Your task to perform on an android device: Search for pizza restaurants on Maps Image 0: 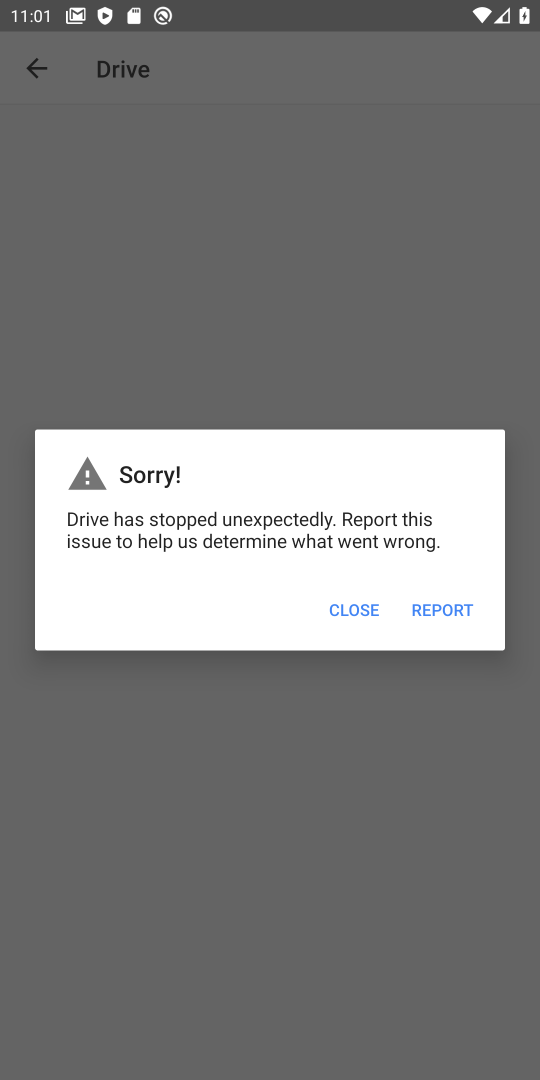
Step 0: press home button
Your task to perform on an android device: Search for pizza restaurants on Maps Image 1: 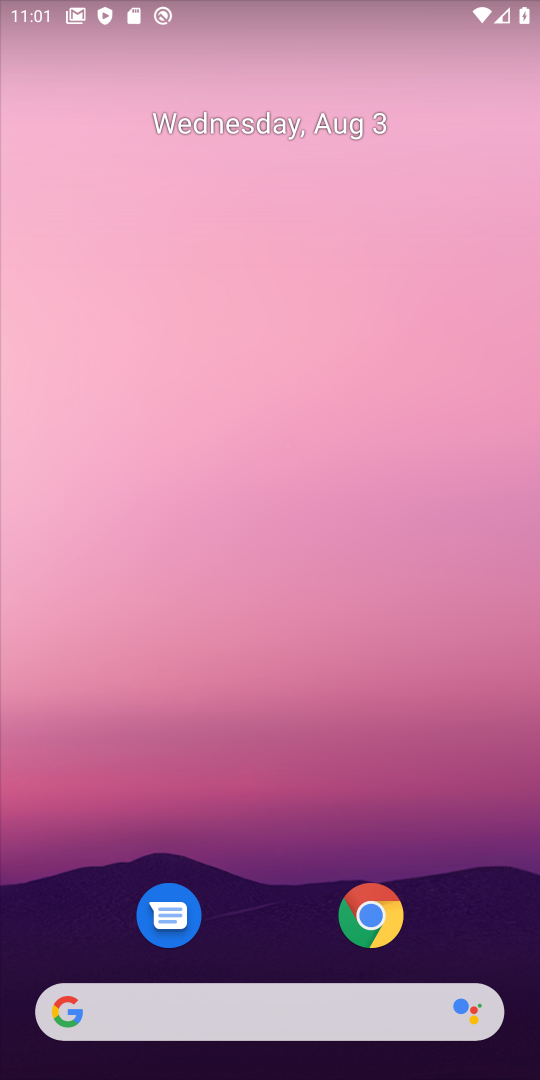
Step 1: drag from (235, 873) to (164, 87)
Your task to perform on an android device: Search for pizza restaurants on Maps Image 2: 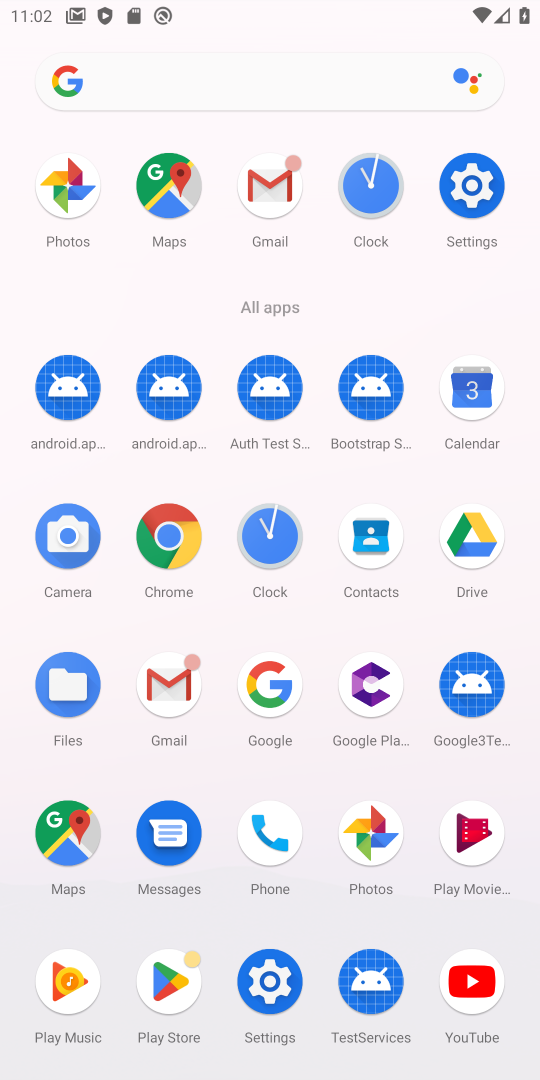
Step 2: click (73, 825)
Your task to perform on an android device: Search for pizza restaurants on Maps Image 3: 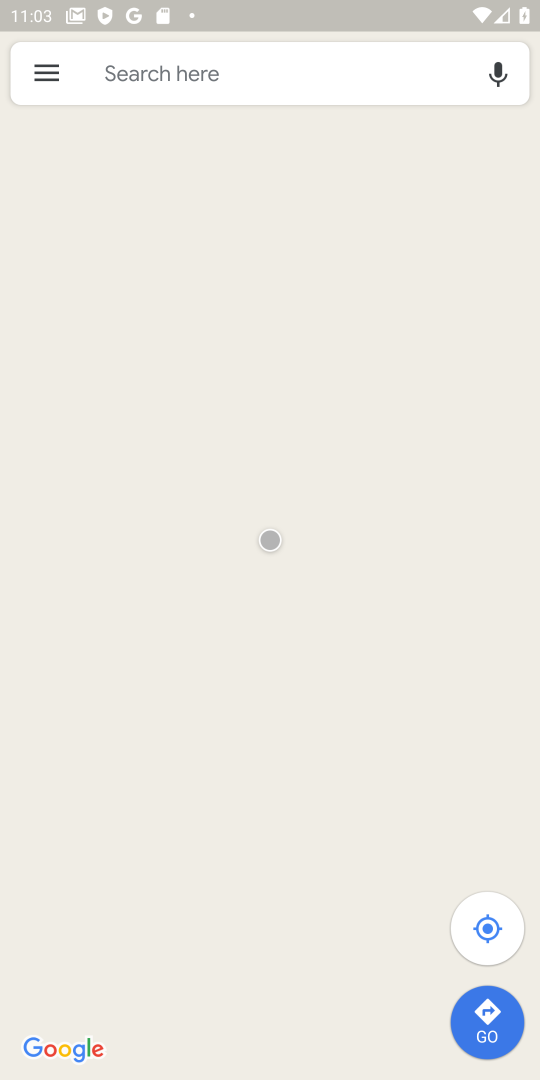
Step 3: click (278, 85)
Your task to perform on an android device: Search for pizza restaurants on Maps Image 4: 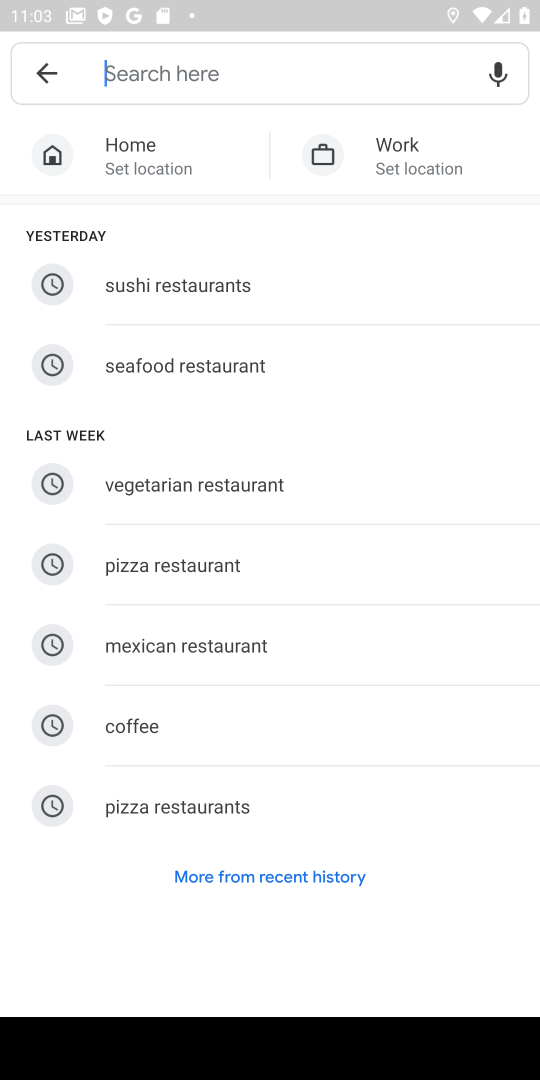
Step 4: type "pizza restaurants "
Your task to perform on an android device: Search for pizza restaurants on Maps Image 5: 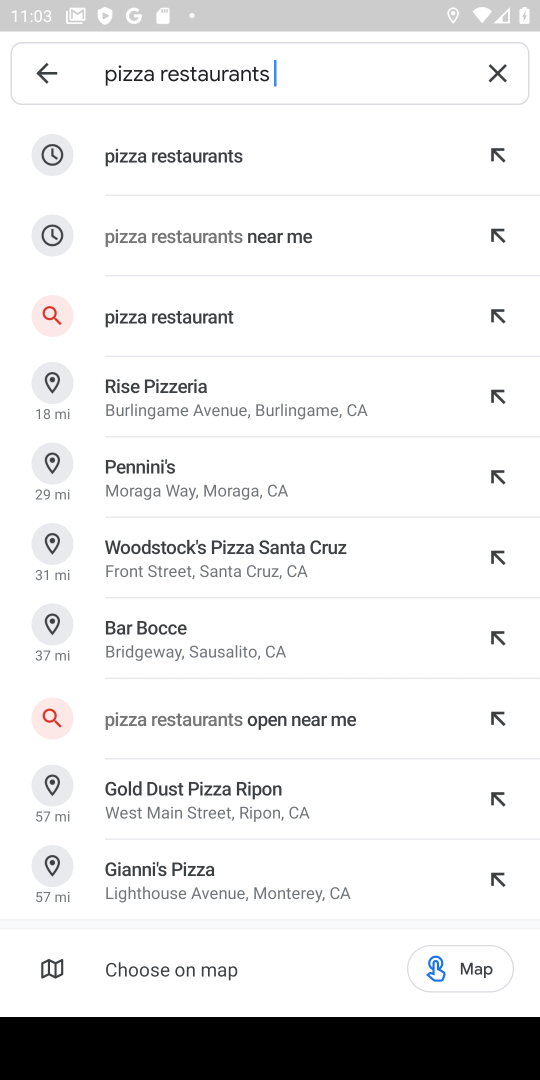
Step 5: click (149, 161)
Your task to perform on an android device: Search for pizza restaurants on Maps Image 6: 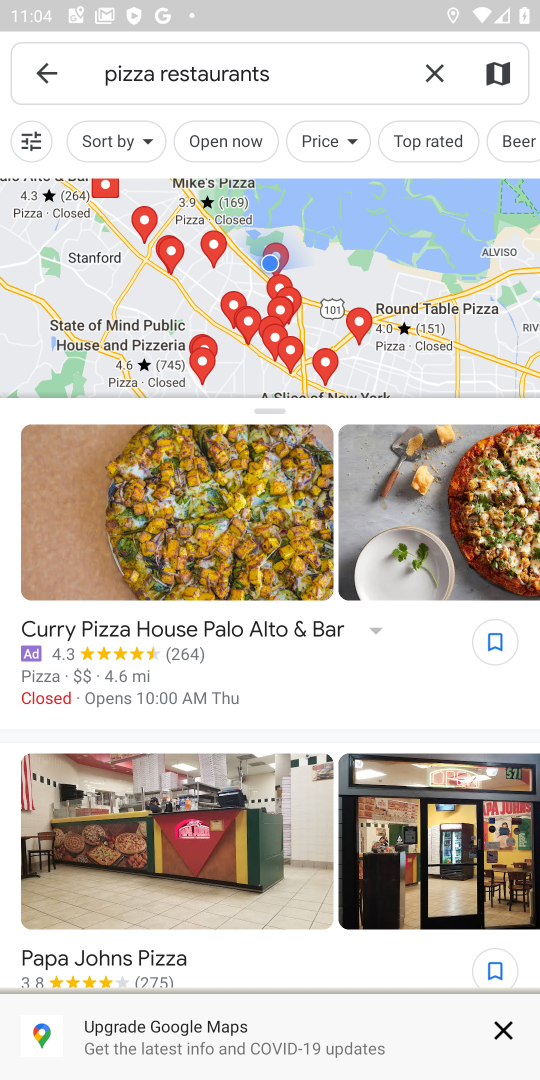
Step 6: task complete